Your task to perform on an android device: What's the news about the US stock market? Image 0: 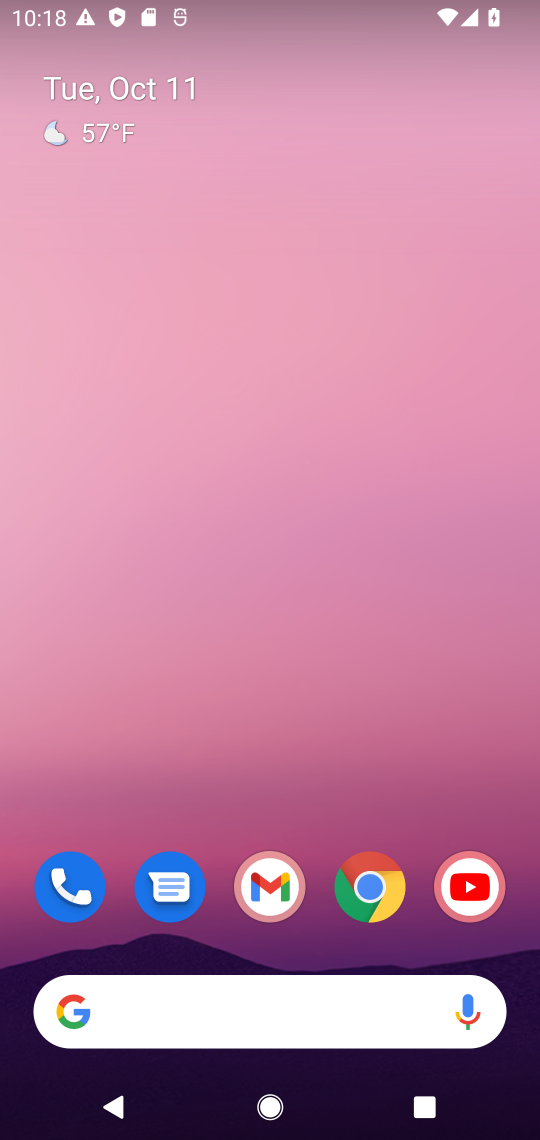
Step 0: press home button
Your task to perform on an android device: What's the news about the US stock market? Image 1: 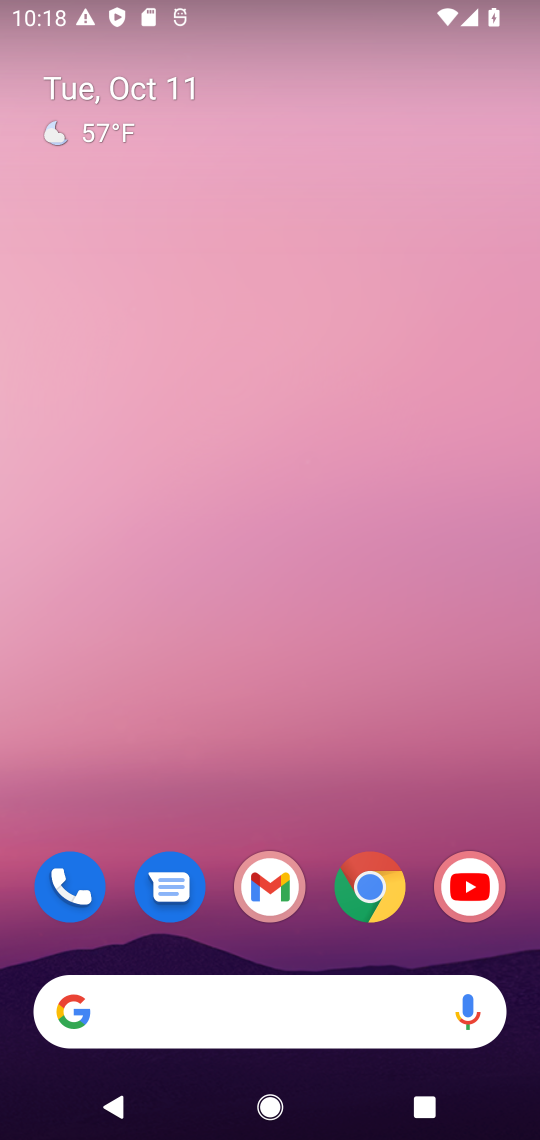
Step 1: click (271, 1022)
Your task to perform on an android device: What's the news about the US stock market? Image 2: 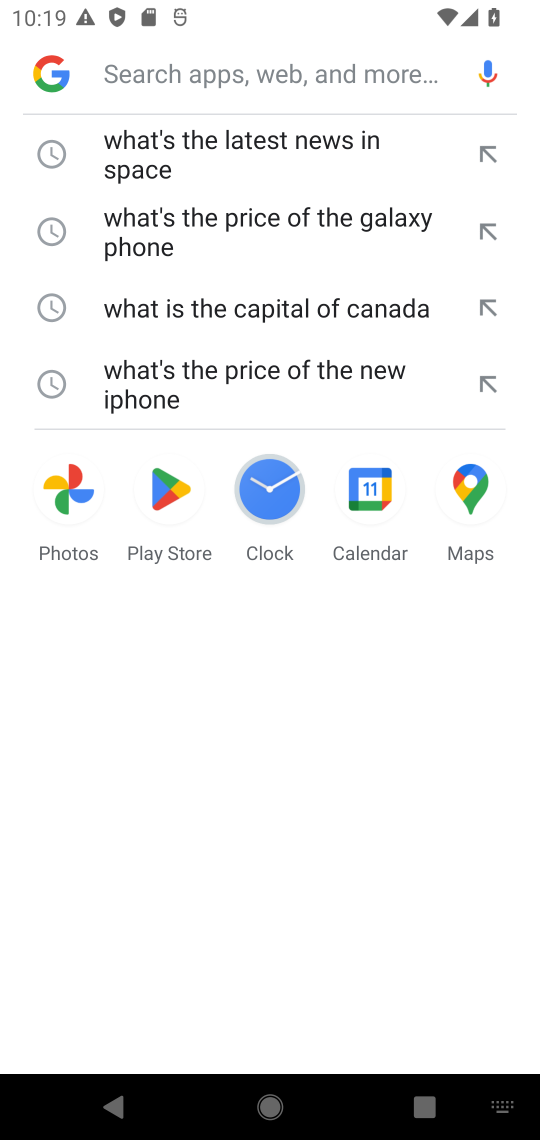
Step 2: press enter
Your task to perform on an android device: What's the news about the US stock market? Image 3: 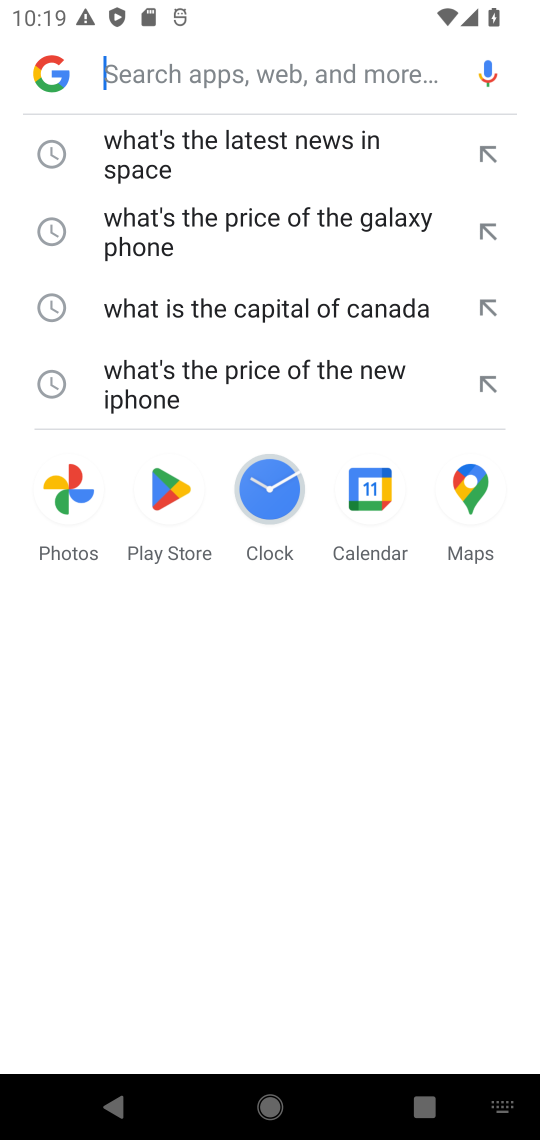
Step 3: type "What's the news about the US stock market"
Your task to perform on an android device: What's the news about the US stock market? Image 4: 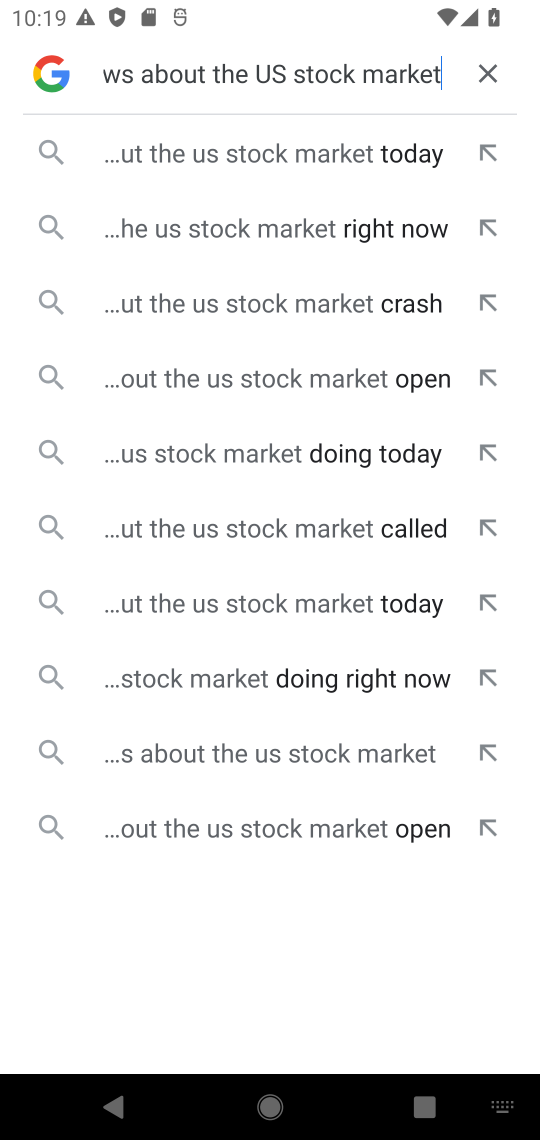
Step 4: press enter
Your task to perform on an android device: What's the news about the US stock market? Image 5: 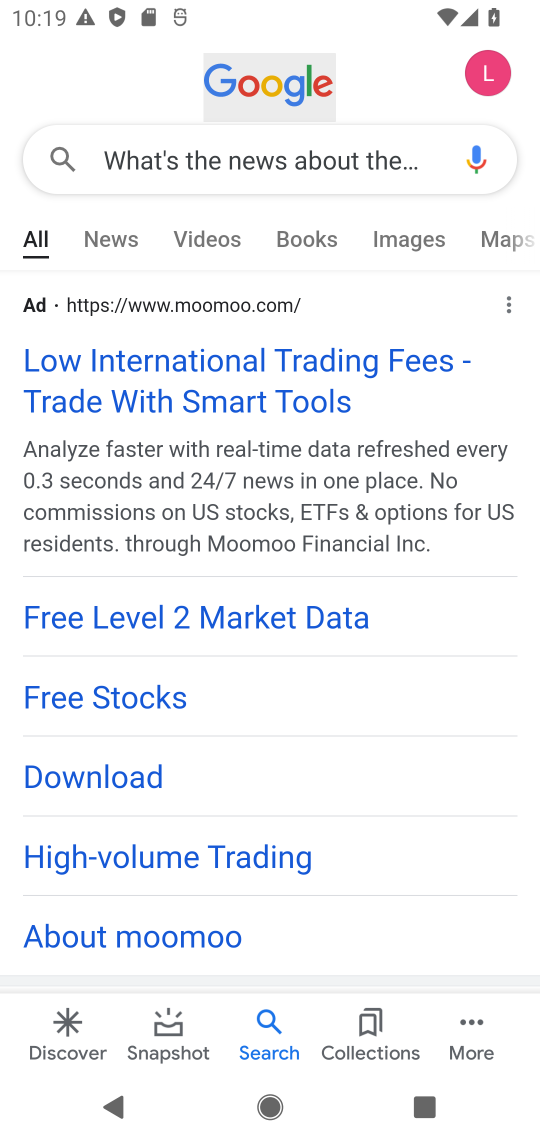
Step 5: drag from (336, 782) to (361, 532)
Your task to perform on an android device: What's the news about the US stock market? Image 6: 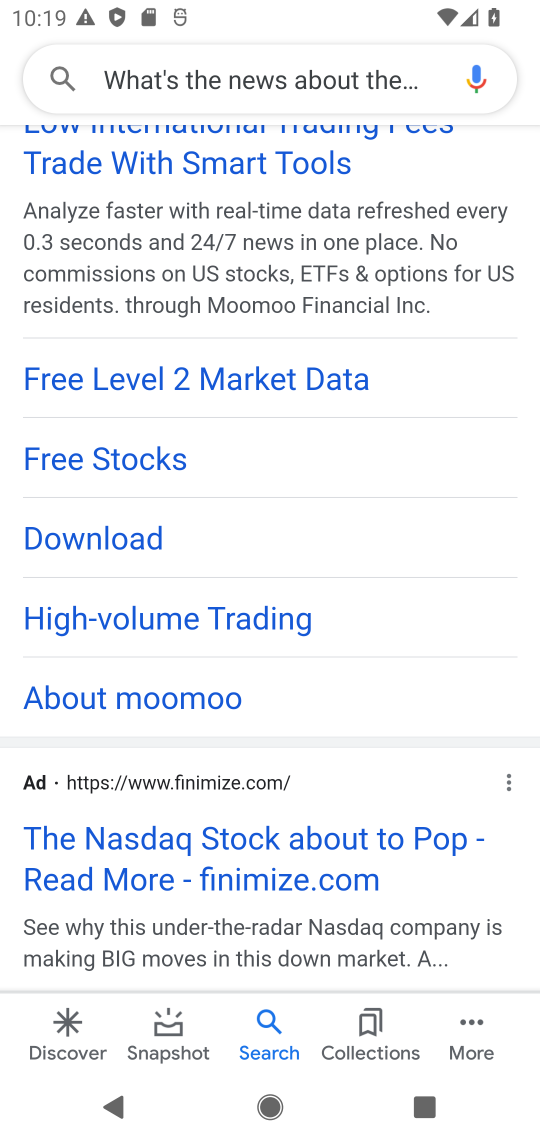
Step 6: drag from (407, 781) to (404, 435)
Your task to perform on an android device: What's the news about the US stock market? Image 7: 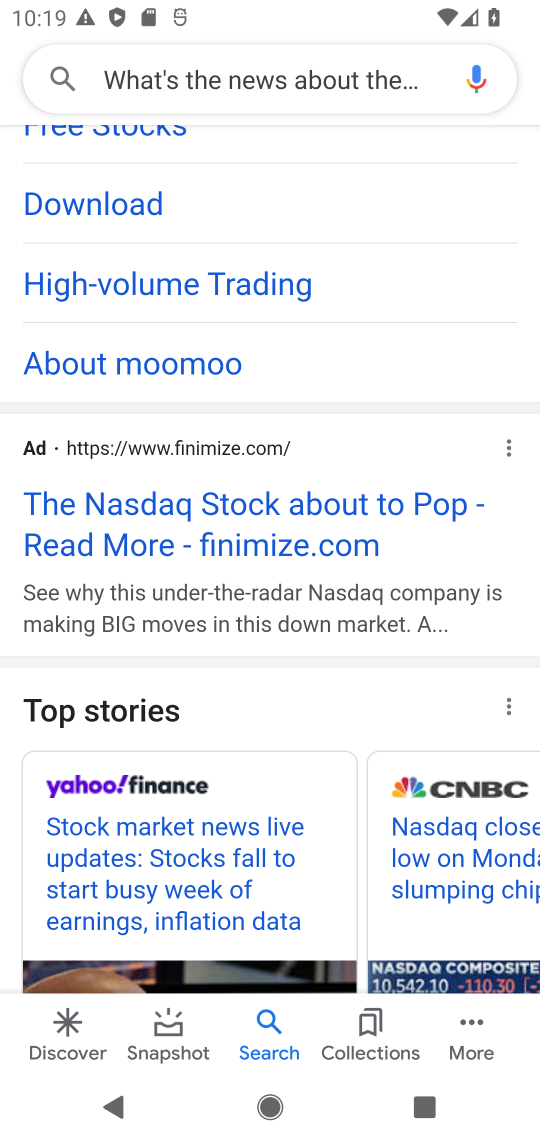
Step 7: drag from (356, 875) to (356, 446)
Your task to perform on an android device: What's the news about the US stock market? Image 8: 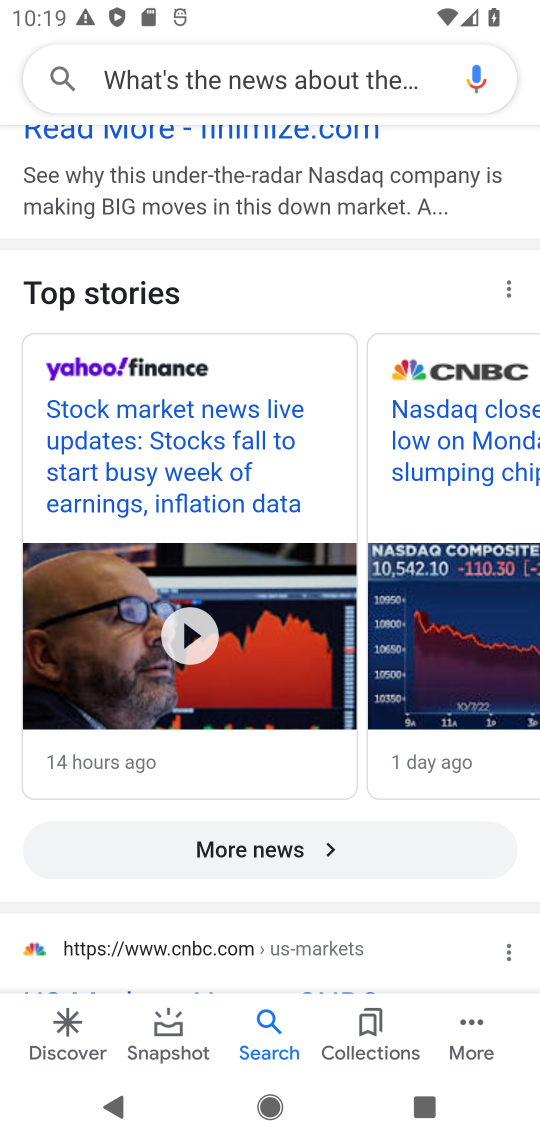
Step 8: drag from (344, 851) to (348, 354)
Your task to perform on an android device: What's the news about the US stock market? Image 9: 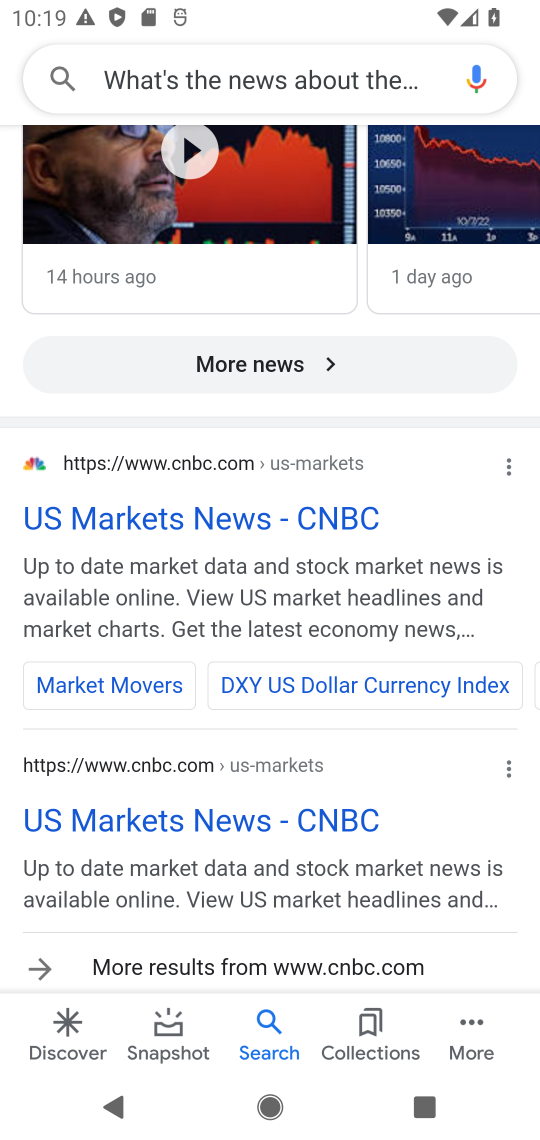
Step 9: click (267, 521)
Your task to perform on an android device: What's the news about the US stock market? Image 10: 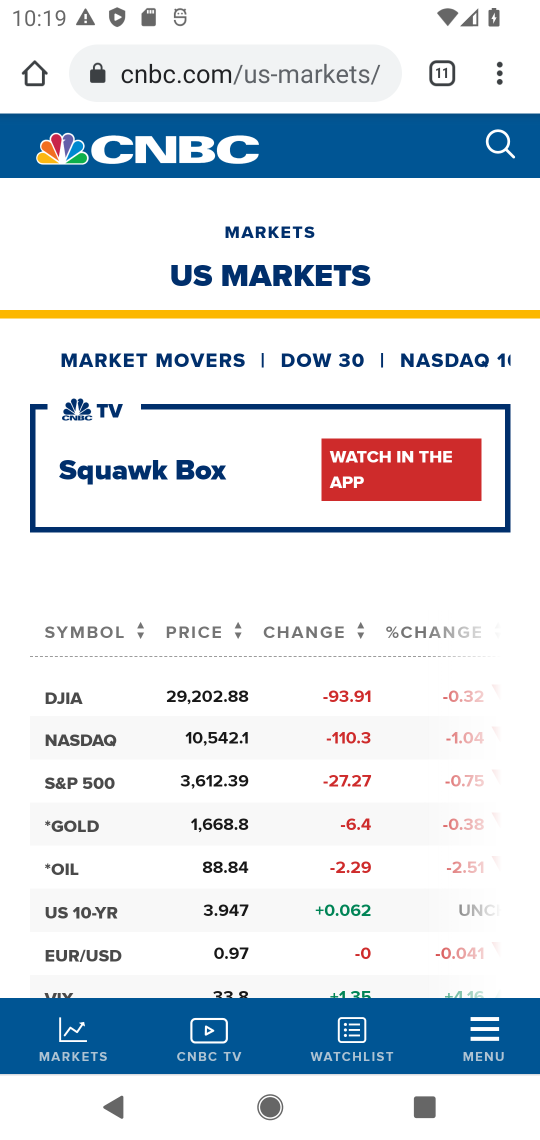
Step 10: task complete